Your task to perform on an android device: turn off airplane mode Image 0: 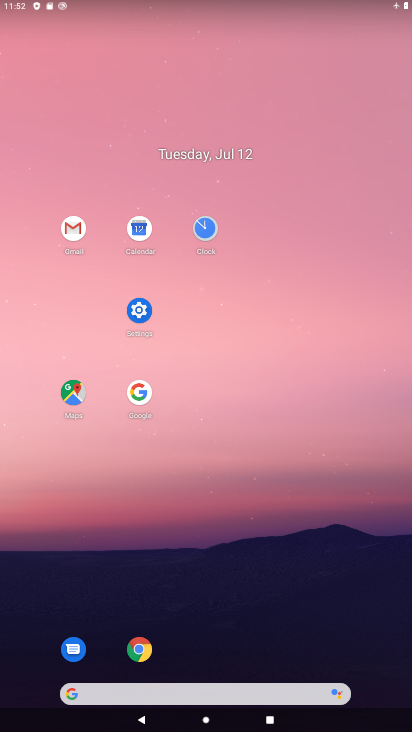
Step 0: click (138, 305)
Your task to perform on an android device: turn off airplane mode Image 1: 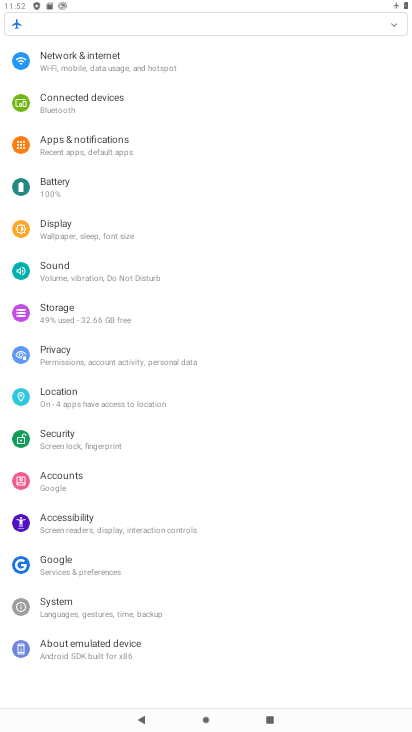
Step 1: drag from (309, 179) to (312, 426)
Your task to perform on an android device: turn off airplane mode Image 2: 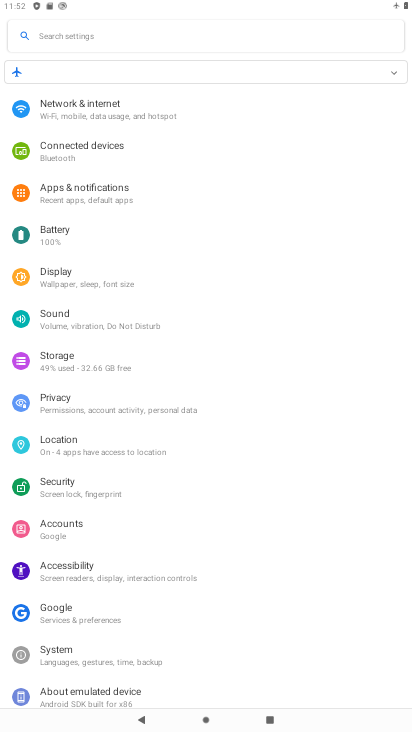
Step 2: click (131, 95)
Your task to perform on an android device: turn off airplane mode Image 3: 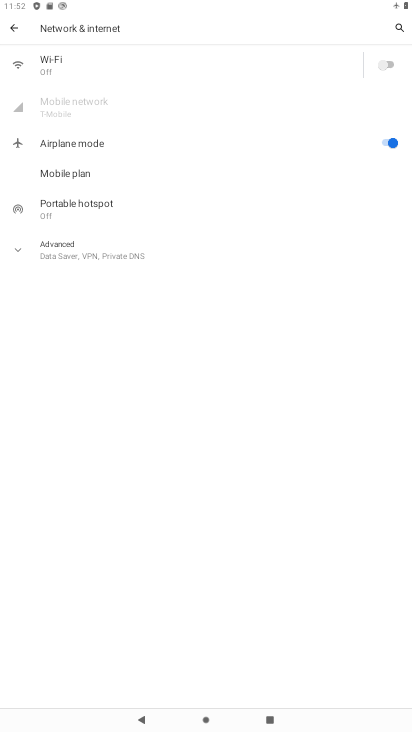
Step 3: click (379, 138)
Your task to perform on an android device: turn off airplane mode Image 4: 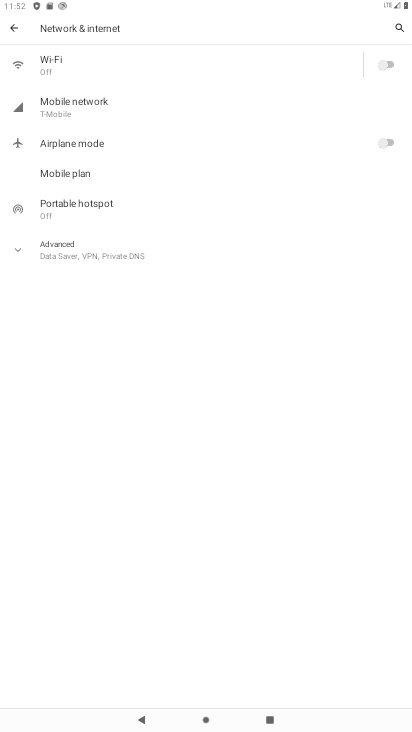
Step 4: task complete